Your task to perform on an android device: What's the weather going to be tomorrow? Image 0: 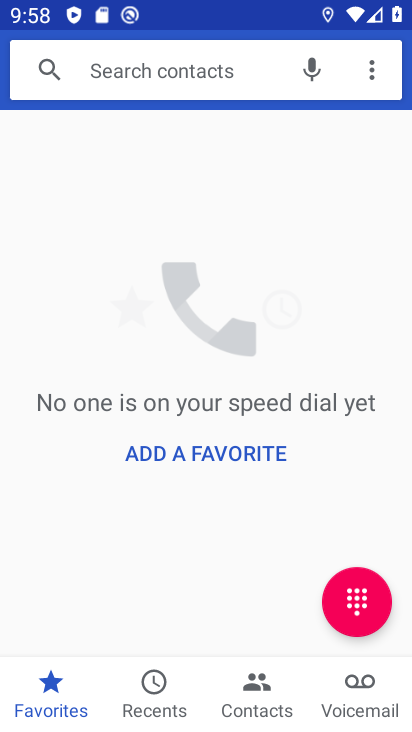
Step 0: press home button
Your task to perform on an android device: What's the weather going to be tomorrow? Image 1: 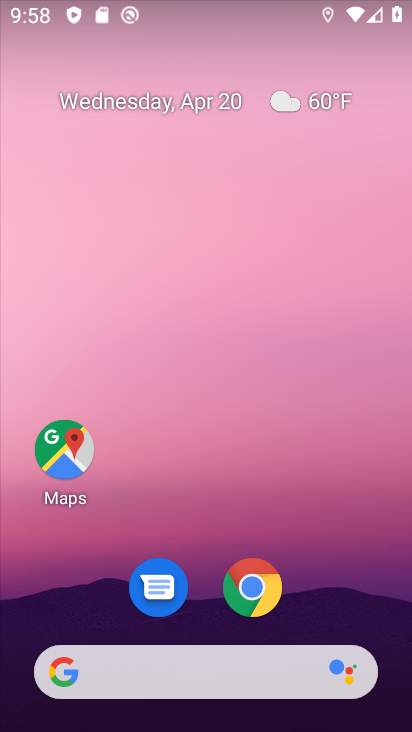
Step 1: click (270, 595)
Your task to perform on an android device: What's the weather going to be tomorrow? Image 2: 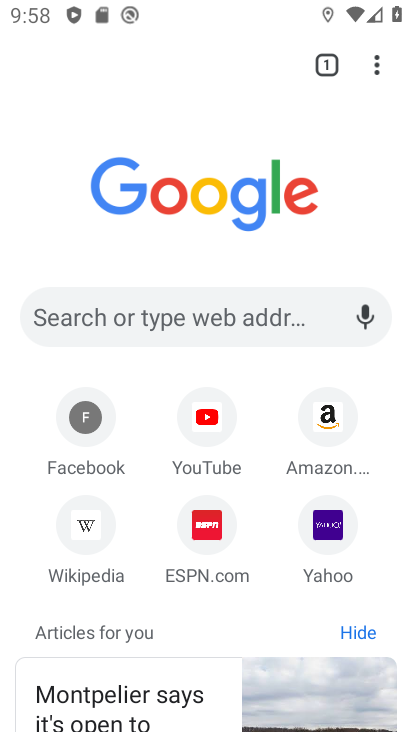
Step 2: click (131, 308)
Your task to perform on an android device: What's the weather going to be tomorrow? Image 3: 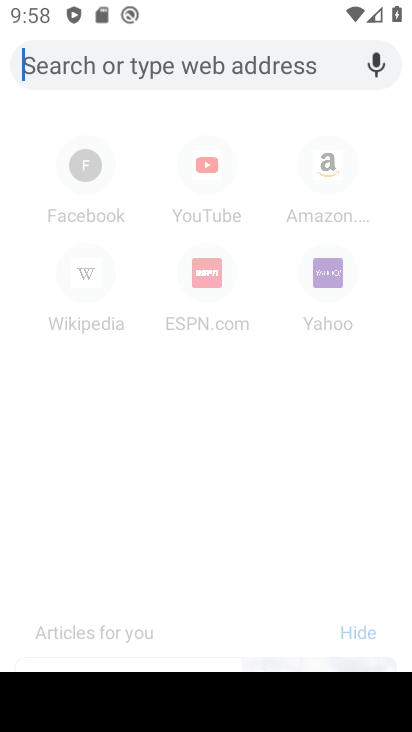
Step 3: type "whats the weather going to be tomorrow"
Your task to perform on an android device: What's the weather going to be tomorrow? Image 4: 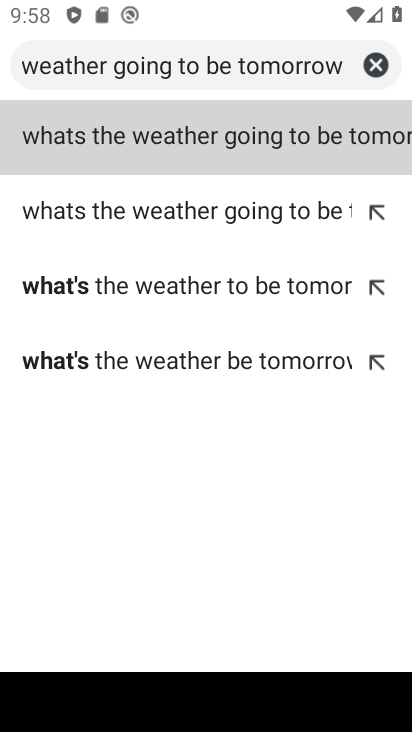
Step 4: click (181, 139)
Your task to perform on an android device: What's the weather going to be tomorrow? Image 5: 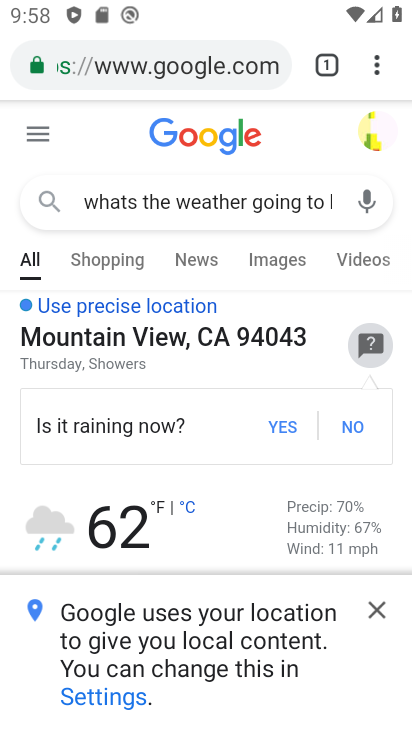
Step 5: task complete